Your task to perform on an android device: Go to eBay Image 0: 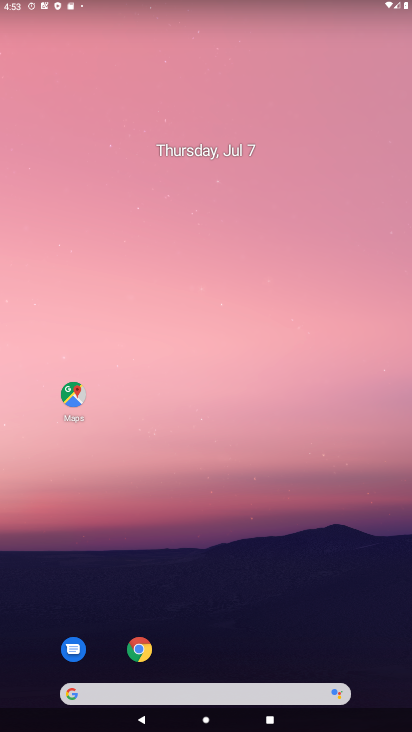
Step 0: drag from (342, 619) to (180, 21)
Your task to perform on an android device: Go to eBay Image 1: 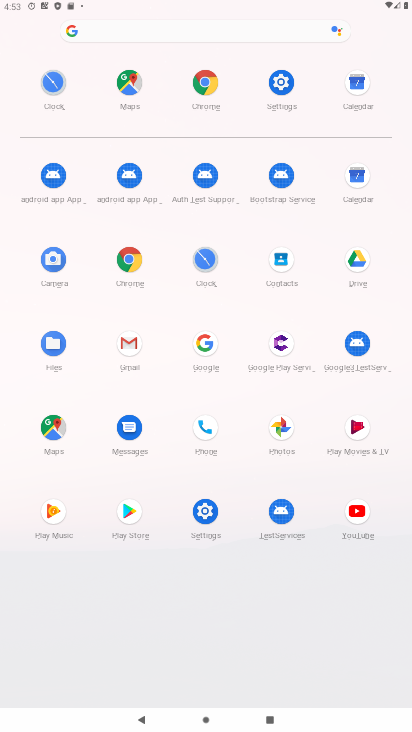
Step 1: click (200, 356)
Your task to perform on an android device: Go to eBay Image 2: 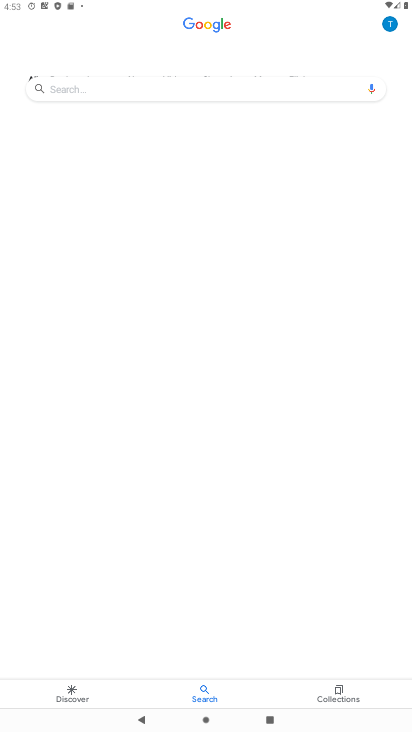
Step 2: click (110, 91)
Your task to perform on an android device: Go to eBay Image 3: 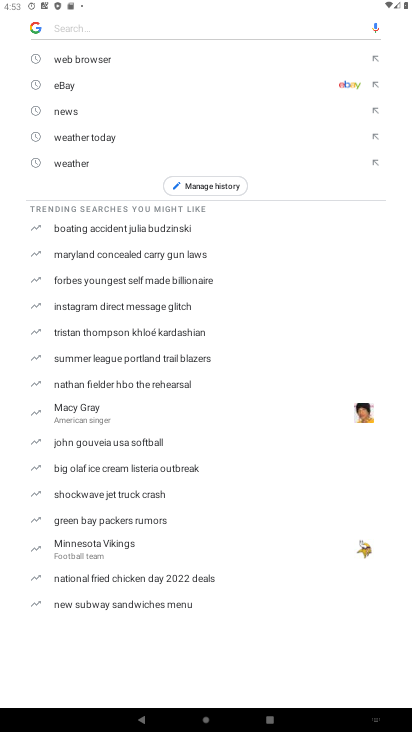
Step 3: click (67, 79)
Your task to perform on an android device: Go to eBay Image 4: 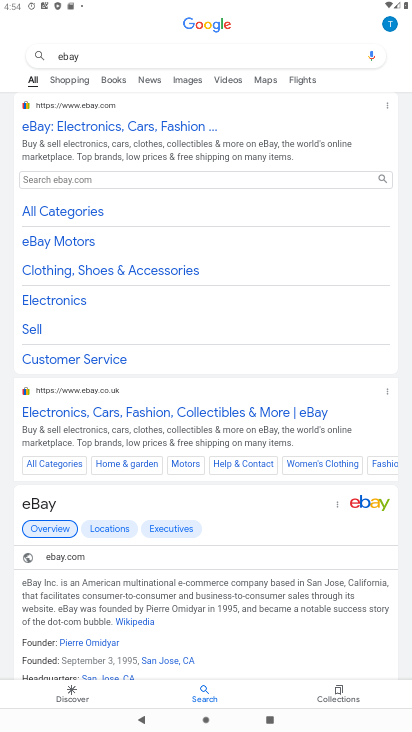
Step 4: task complete